Your task to perform on an android device: stop showing notifications on the lock screen Image 0: 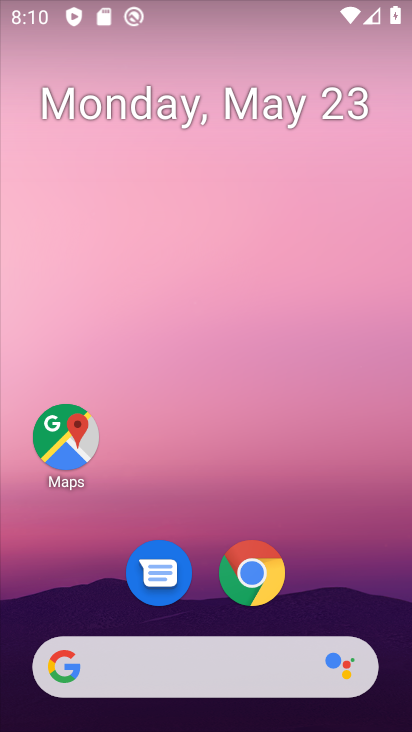
Step 0: press home button
Your task to perform on an android device: stop showing notifications on the lock screen Image 1: 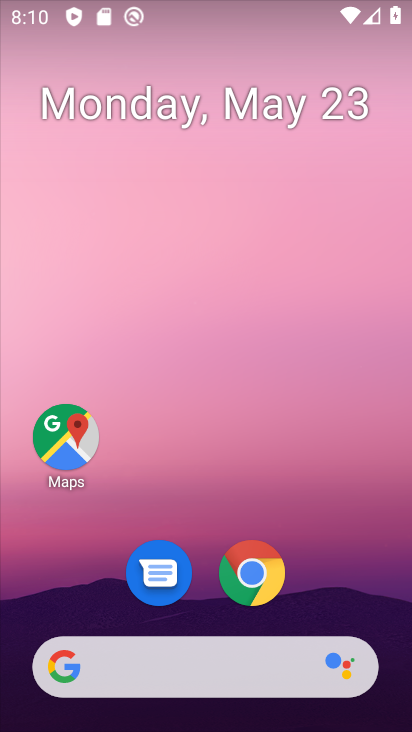
Step 1: drag from (200, 617) to (242, 116)
Your task to perform on an android device: stop showing notifications on the lock screen Image 2: 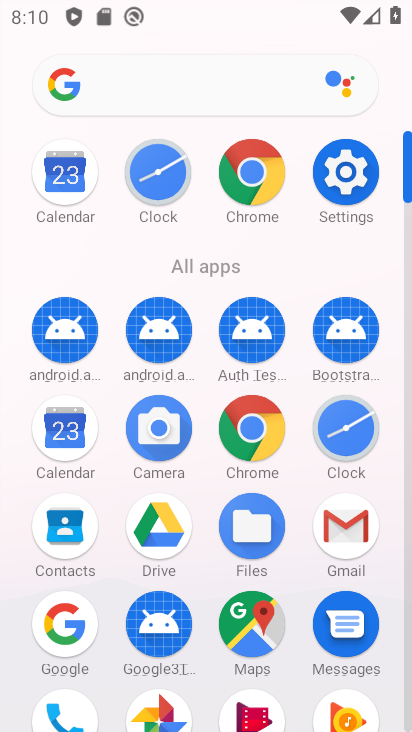
Step 2: click (348, 164)
Your task to perform on an android device: stop showing notifications on the lock screen Image 3: 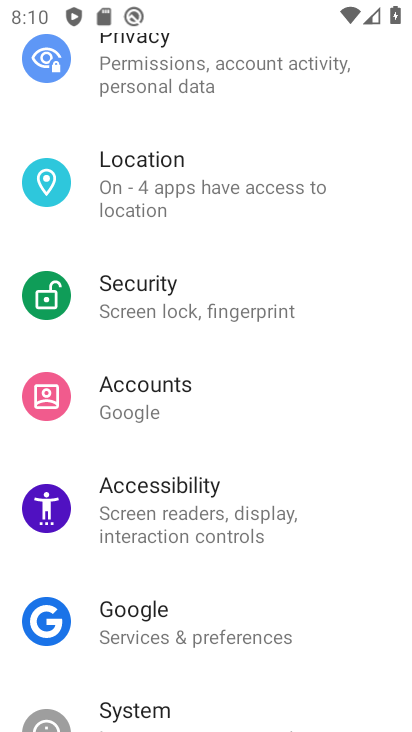
Step 3: drag from (202, 113) to (223, 639)
Your task to perform on an android device: stop showing notifications on the lock screen Image 4: 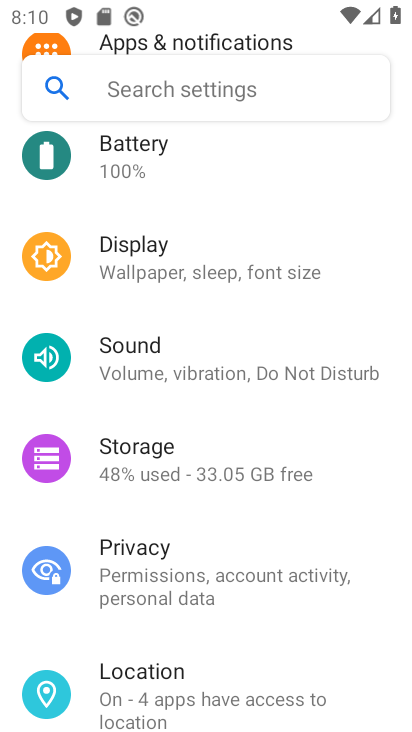
Step 4: drag from (199, 186) to (251, 637)
Your task to perform on an android device: stop showing notifications on the lock screen Image 5: 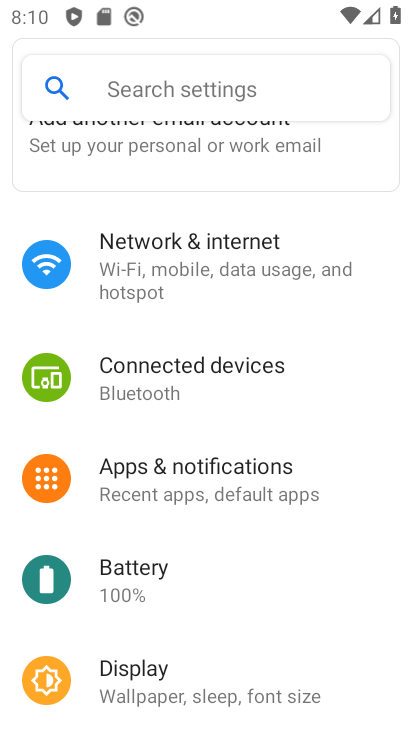
Step 5: click (297, 473)
Your task to perform on an android device: stop showing notifications on the lock screen Image 6: 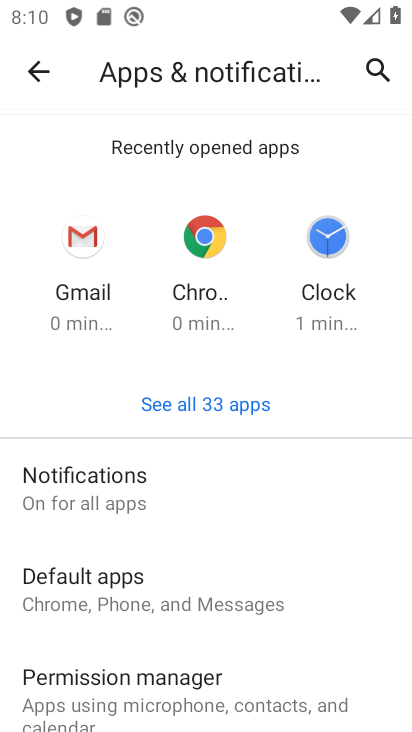
Step 6: click (168, 478)
Your task to perform on an android device: stop showing notifications on the lock screen Image 7: 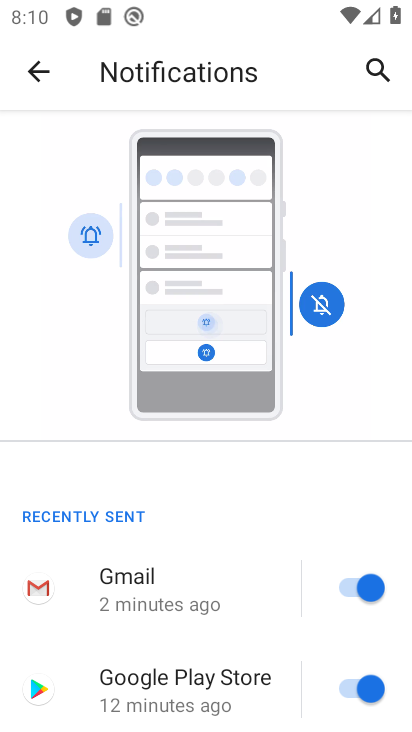
Step 7: drag from (228, 644) to (262, 137)
Your task to perform on an android device: stop showing notifications on the lock screen Image 8: 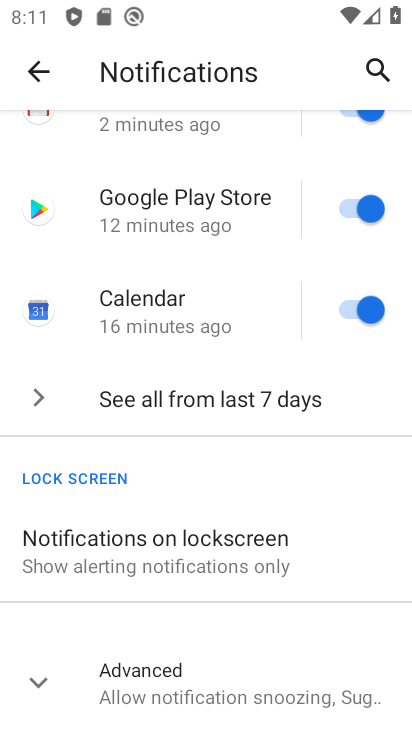
Step 8: click (212, 552)
Your task to perform on an android device: stop showing notifications on the lock screen Image 9: 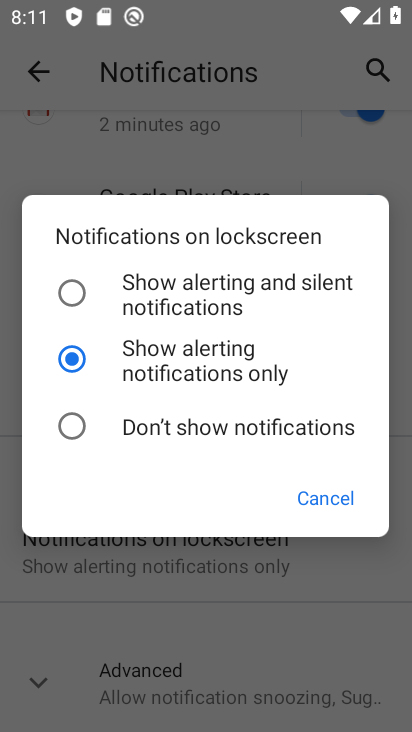
Step 9: click (73, 419)
Your task to perform on an android device: stop showing notifications on the lock screen Image 10: 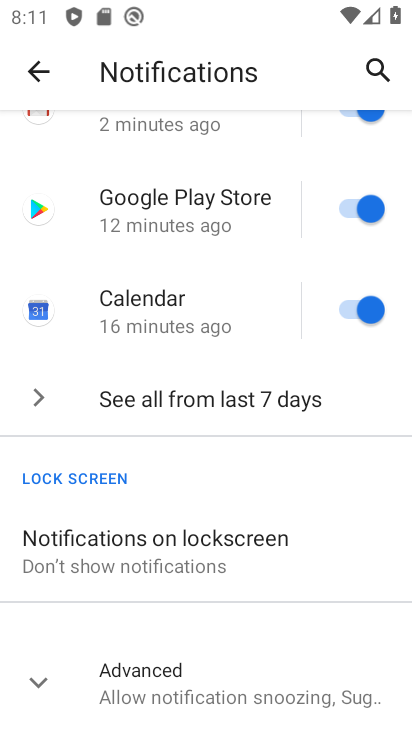
Step 10: task complete